Your task to perform on an android device: Go to Maps Image 0: 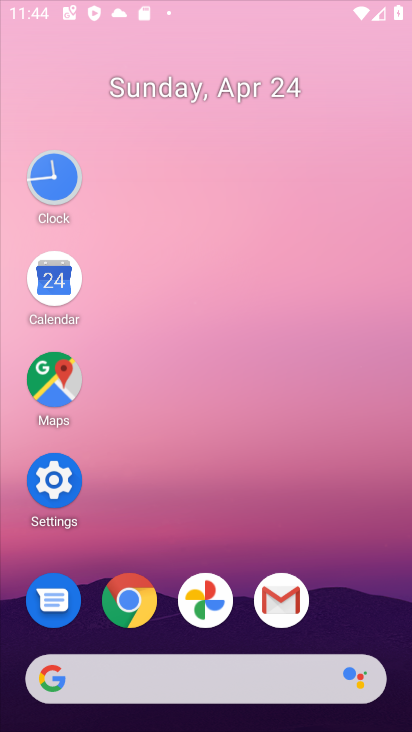
Step 0: click (52, 480)
Your task to perform on an android device: Go to Maps Image 1: 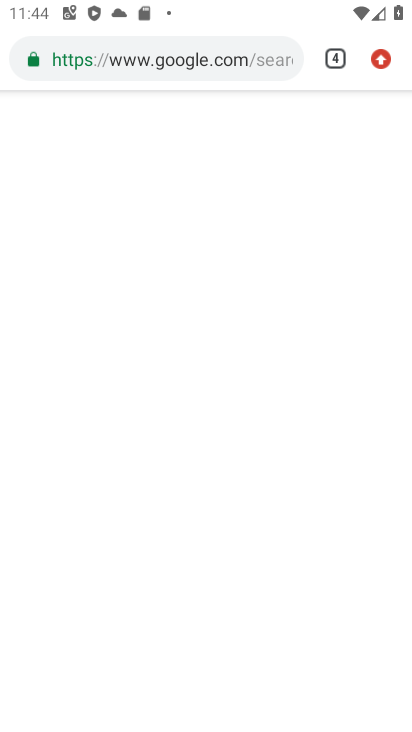
Step 1: press home button
Your task to perform on an android device: Go to Maps Image 2: 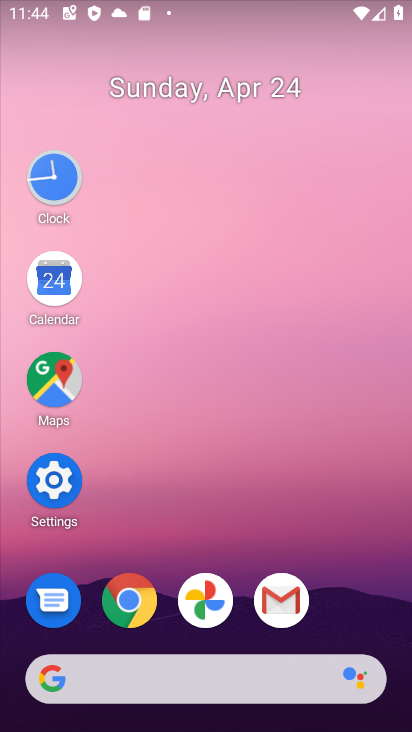
Step 2: click (48, 383)
Your task to perform on an android device: Go to Maps Image 3: 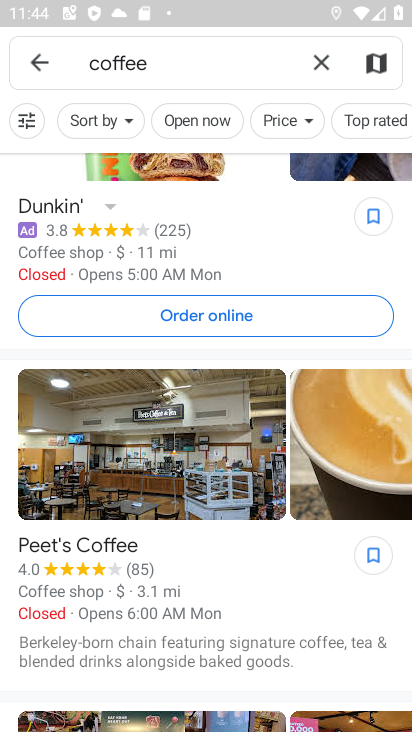
Step 3: click (324, 63)
Your task to perform on an android device: Go to Maps Image 4: 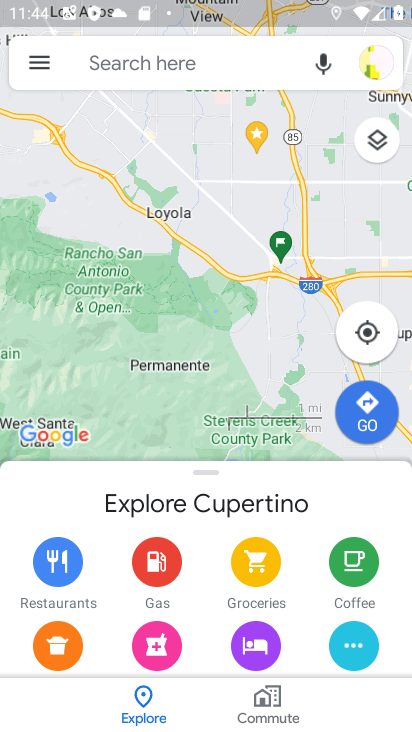
Step 4: task complete